Your task to perform on an android device: Open internet settings Image 0: 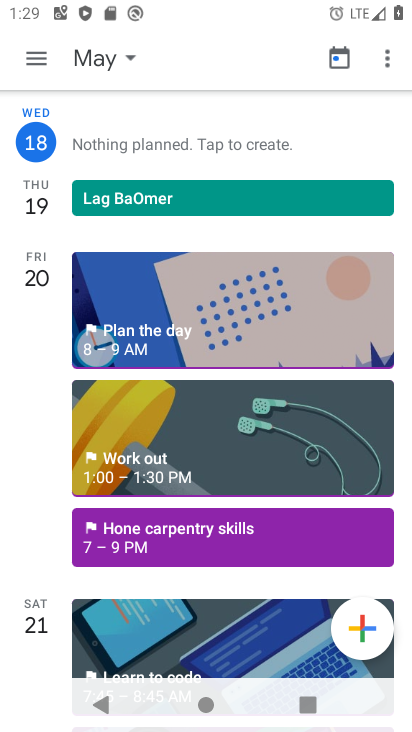
Step 0: press home button
Your task to perform on an android device: Open internet settings Image 1: 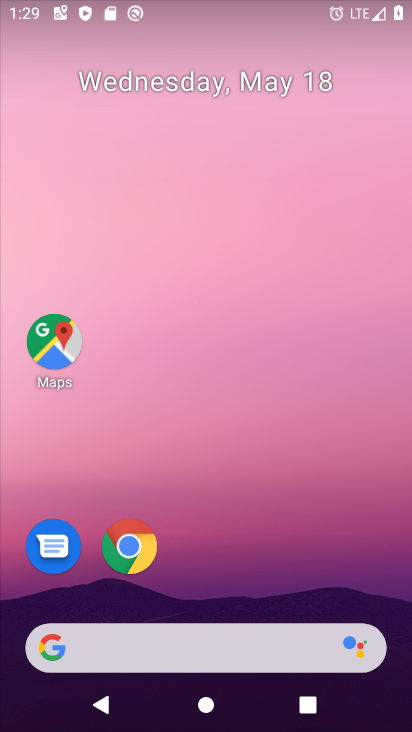
Step 1: drag from (257, 670) to (240, 32)
Your task to perform on an android device: Open internet settings Image 2: 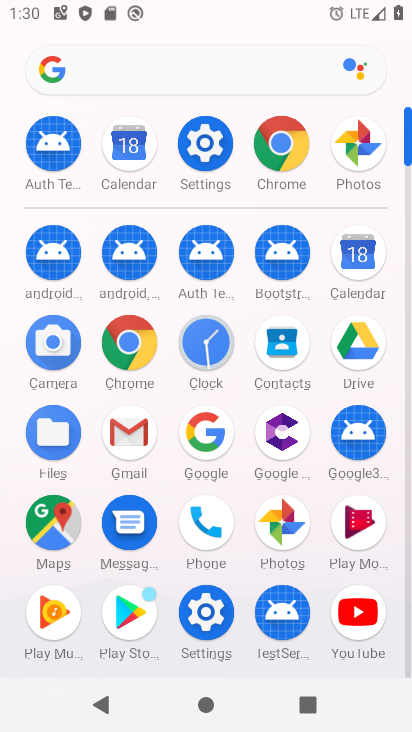
Step 2: click (207, 161)
Your task to perform on an android device: Open internet settings Image 3: 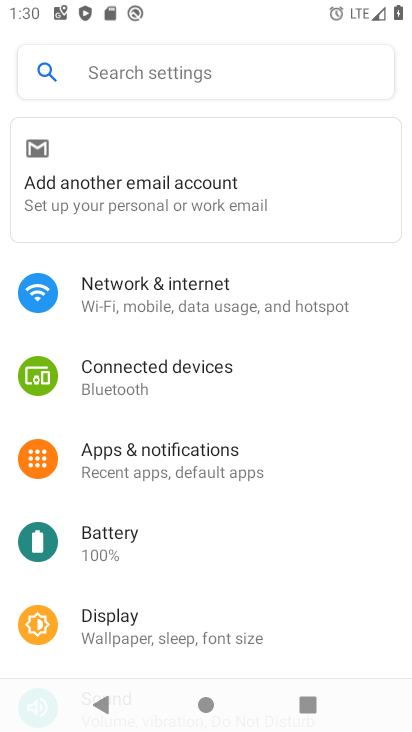
Step 3: click (188, 309)
Your task to perform on an android device: Open internet settings Image 4: 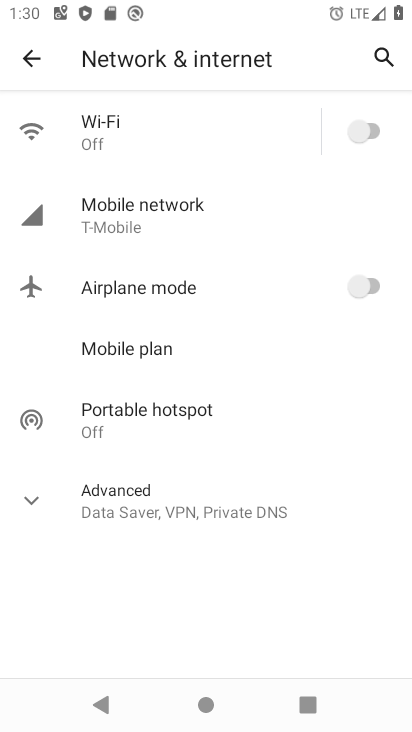
Step 4: task complete